Your task to perform on an android device: see tabs open on other devices in the chrome app Image 0: 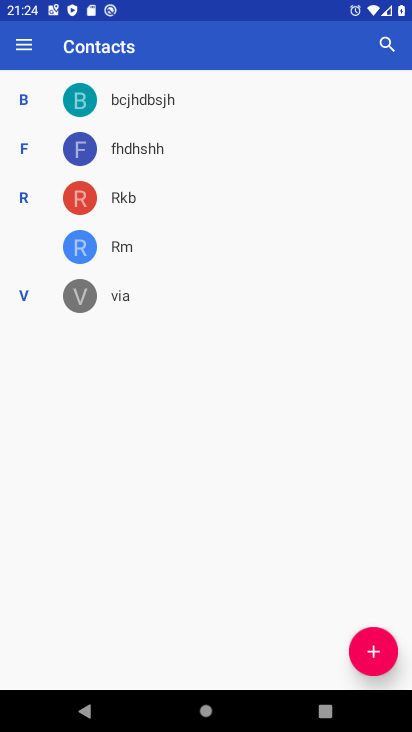
Step 0: press home button
Your task to perform on an android device: see tabs open on other devices in the chrome app Image 1: 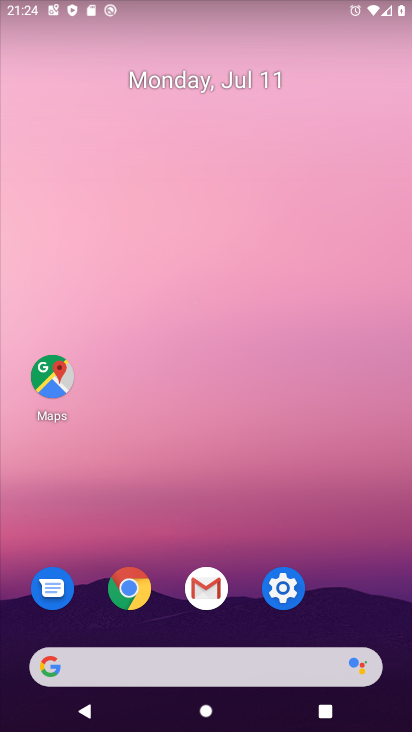
Step 1: click (133, 598)
Your task to perform on an android device: see tabs open on other devices in the chrome app Image 2: 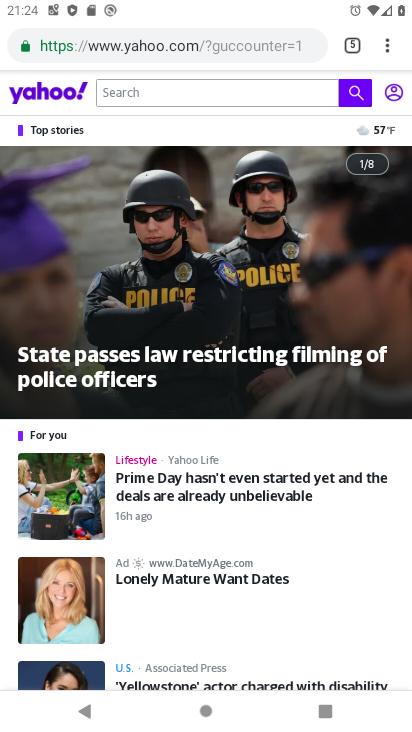
Step 2: click (352, 50)
Your task to perform on an android device: see tabs open on other devices in the chrome app Image 3: 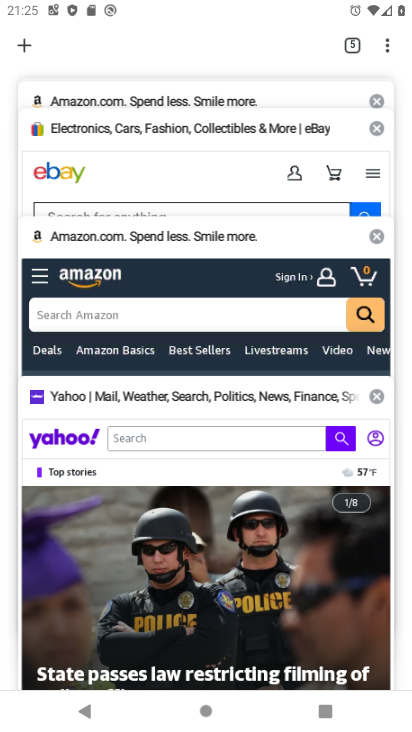
Step 3: click (24, 45)
Your task to perform on an android device: see tabs open on other devices in the chrome app Image 4: 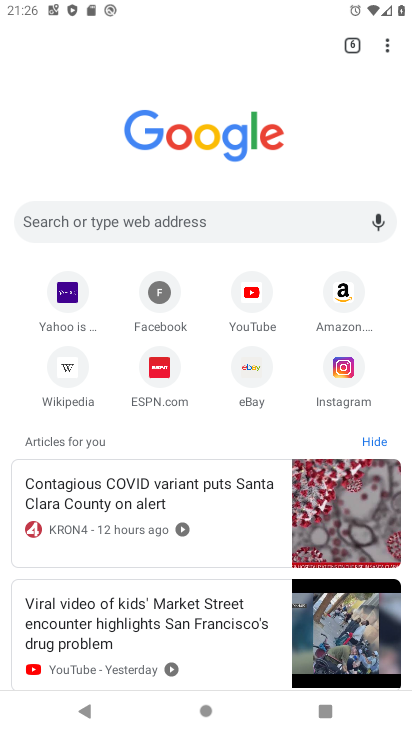
Step 4: task complete